Your task to perform on an android device: Go to Google Image 0: 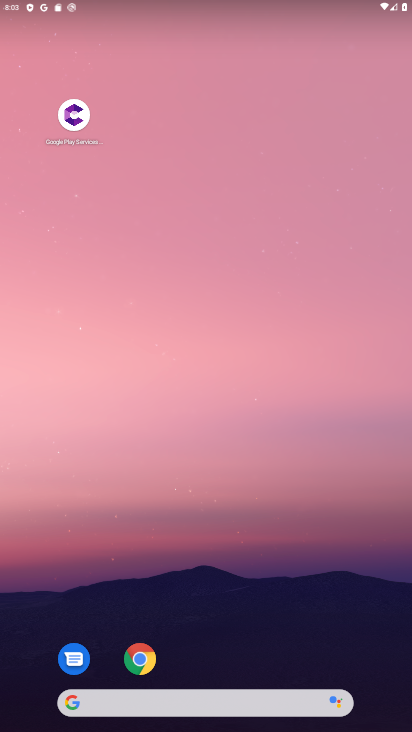
Step 0: drag from (291, 567) to (273, 219)
Your task to perform on an android device: Go to Google Image 1: 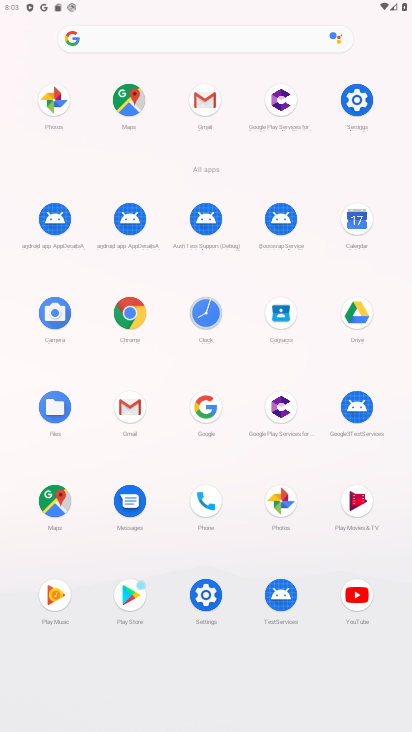
Step 1: click (205, 412)
Your task to perform on an android device: Go to Google Image 2: 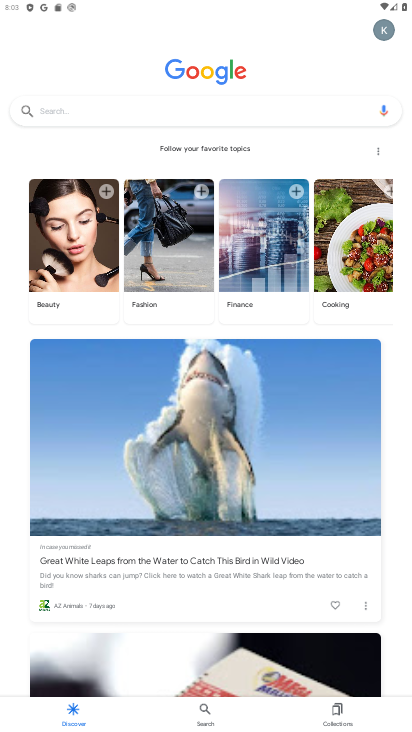
Step 2: task complete